Your task to perform on an android device: Clear all items from cart on costco. Search for usb-c to usb-a on costco, select the first entry, add it to the cart, then select checkout. Image 0: 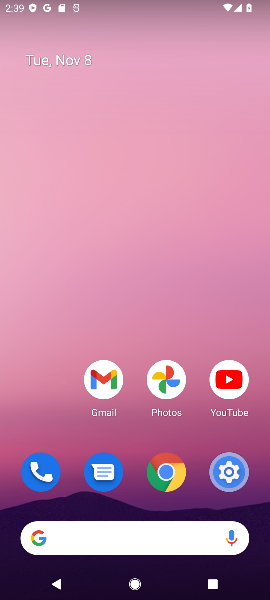
Step 0: click (113, 528)
Your task to perform on an android device: Clear all items from cart on costco. Search for usb-c to usb-a on costco, select the first entry, add it to the cart, then select checkout. Image 1: 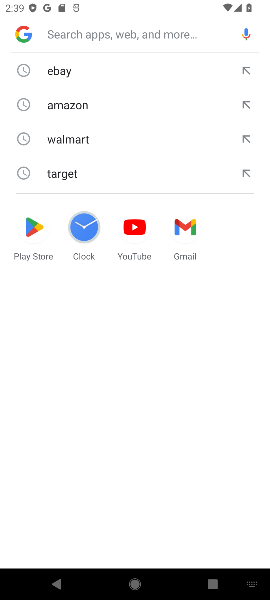
Step 1: type "cotco"
Your task to perform on an android device: Clear all items from cart on costco. Search for usb-c to usb-a on costco, select the first entry, add it to the cart, then select checkout. Image 2: 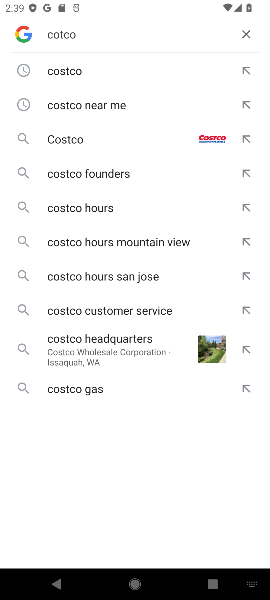
Step 2: click (133, 140)
Your task to perform on an android device: Clear all items from cart on costco. Search for usb-c to usb-a on costco, select the first entry, add it to the cart, then select checkout. Image 3: 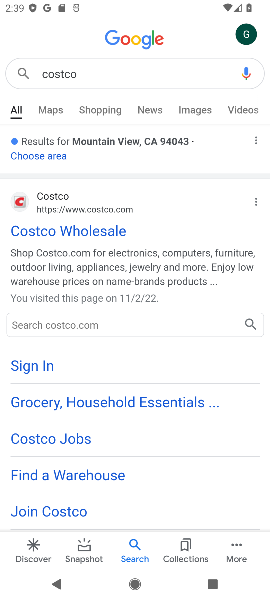
Step 3: click (104, 228)
Your task to perform on an android device: Clear all items from cart on costco. Search for usb-c to usb-a on costco, select the first entry, add it to the cart, then select checkout. Image 4: 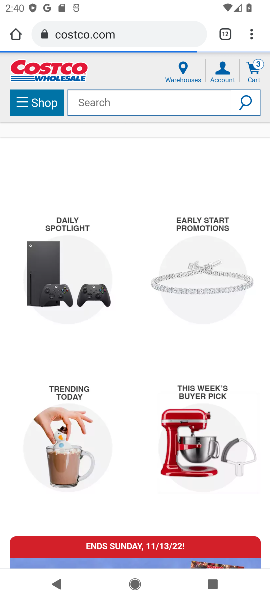
Step 4: task complete